Your task to perform on an android device: toggle pop-ups in chrome Image 0: 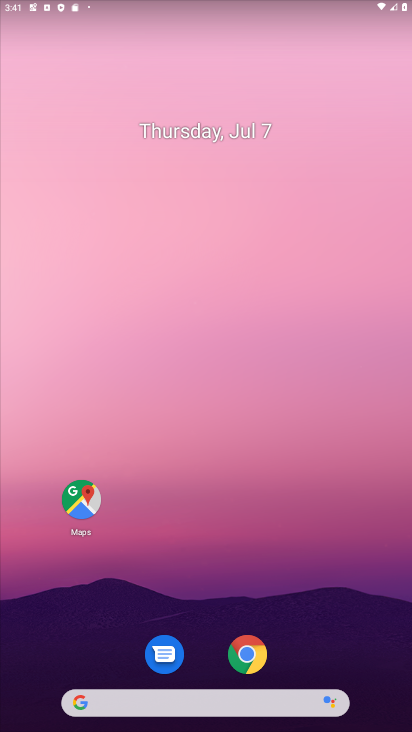
Step 0: click (252, 657)
Your task to perform on an android device: toggle pop-ups in chrome Image 1: 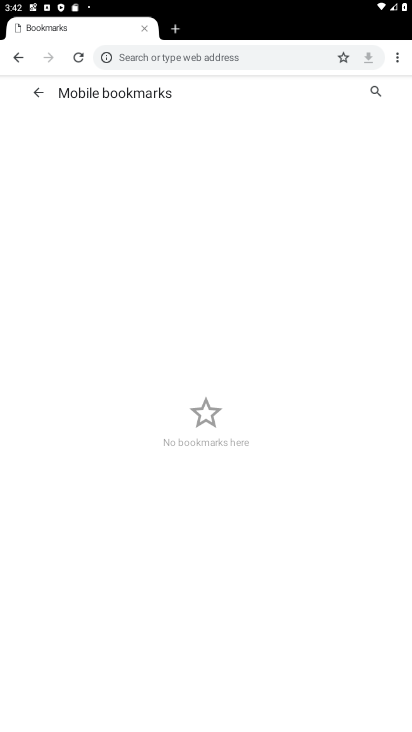
Step 1: press home button
Your task to perform on an android device: toggle pop-ups in chrome Image 2: 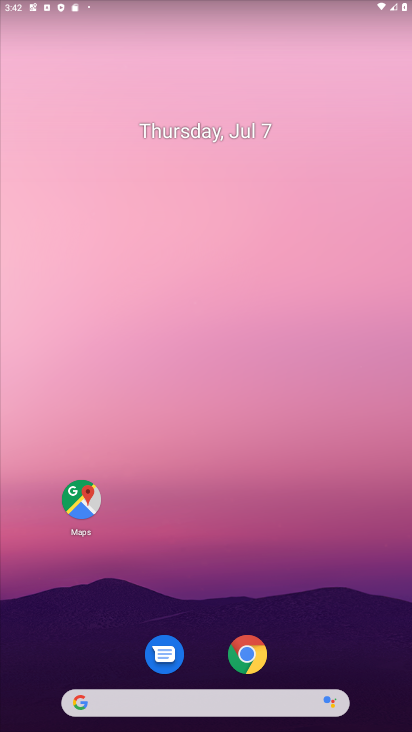
Step 2: click (250, 652)
Your task to perform on an android device: toggle pop-ups in chrome Image 3: 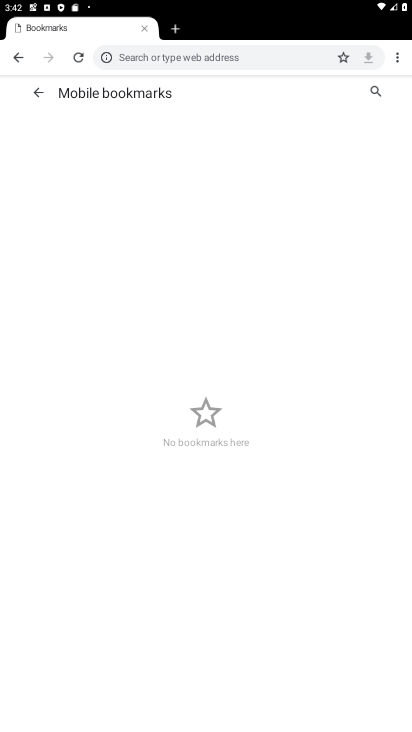
Step 3: click (400, 66)
Your task to perform on an android device: toggle pop-ups in chrome Image 4: 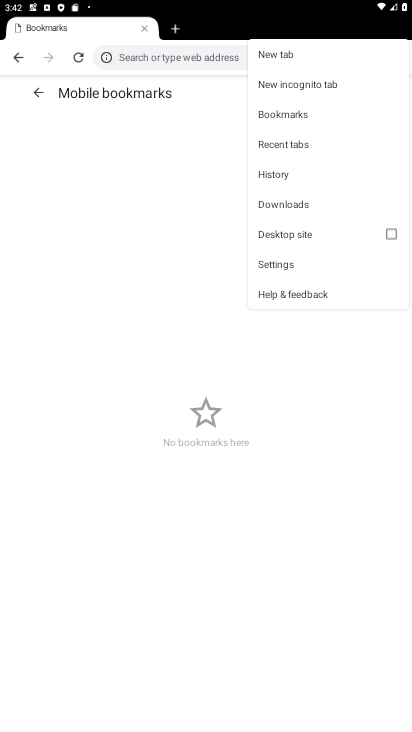
Step 4: click (294, 258)
Your task to perform on an android device: toggle pop-ups in chrome Image 5: 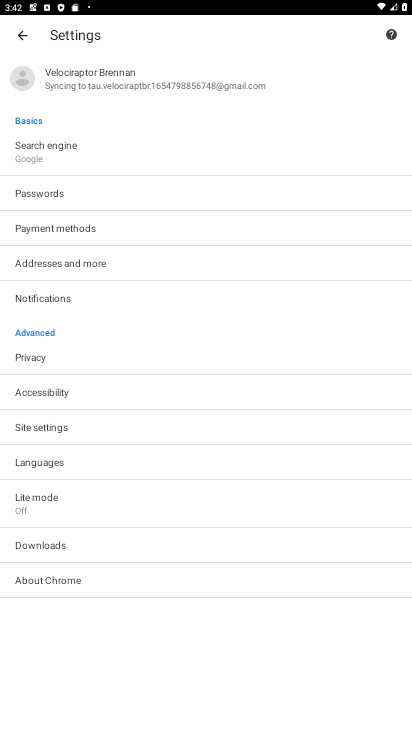
Step 5: click (130, 429)
Your task to perform on an android device: toggle pop-ups in chrome Image 6: 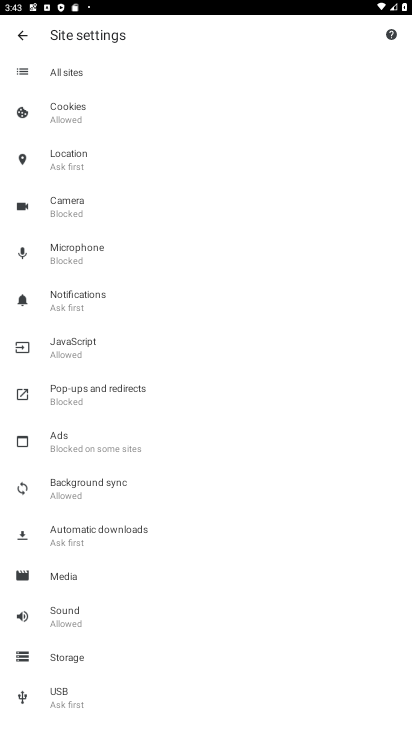
Step 6: click (116, 391)
Your task to perform on an android device: toggle pop-ups in chrome Image 7: 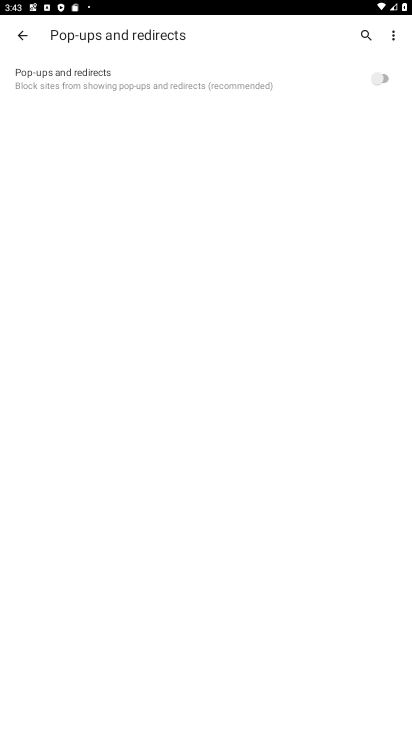
Step 7: click (371, 85)
Your task to perform on an android device: toggle pop-ups in chrome Image 8: 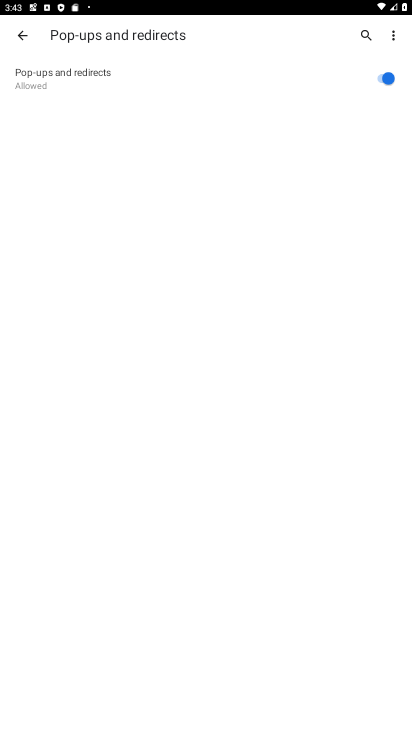
Step 8: task complete